Your task to perform on an android device: Show me productivity apps on the Play Store Image 0: 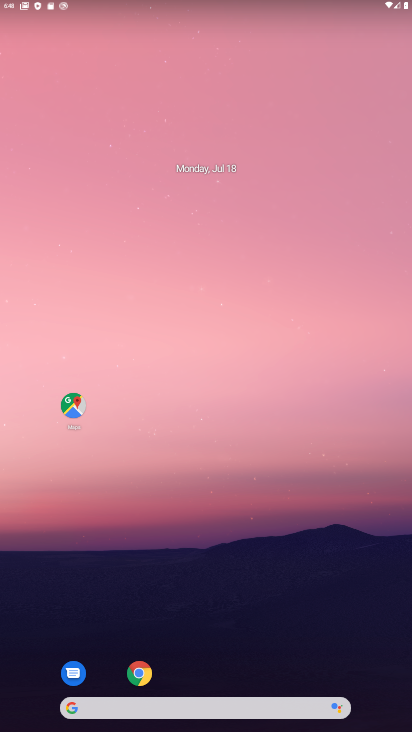
Step 0: drag from (242, 612) to (157, 132)
Your task to perform on an android device: Show me productivity apps on the Play Store Image 1: 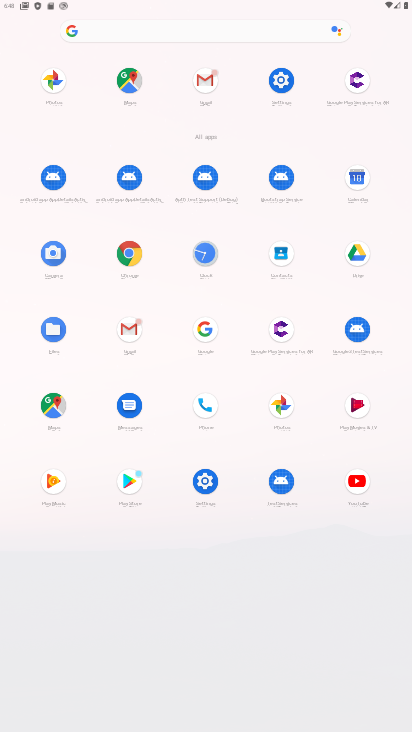
Step 1: click (131, 475)
Your task to perform on an android device: Show me productivity apps on the Play Store Image 2: 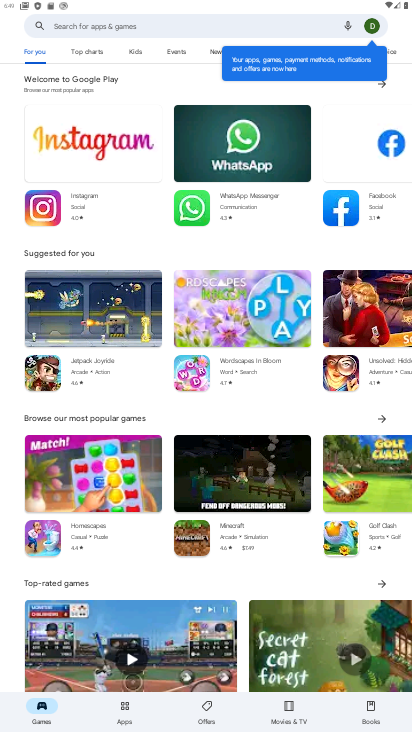
Step 2: click (130, 700)
Your task to perform on an android device: Show me productivity apps on the Play Store Image 3: 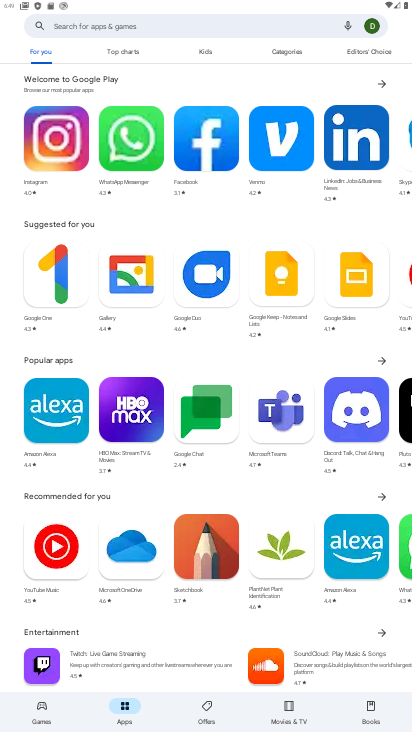
Step 3: task complete